Your task to perform on an android device: open a bookmark in the chrome app Image 0: 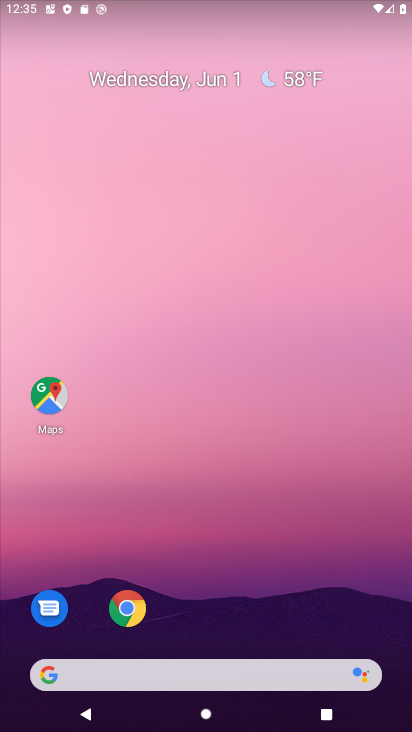
Step 0: click (127, 617)
Your task to perform on an android device: open a bookmark in the chrome app Image 1: 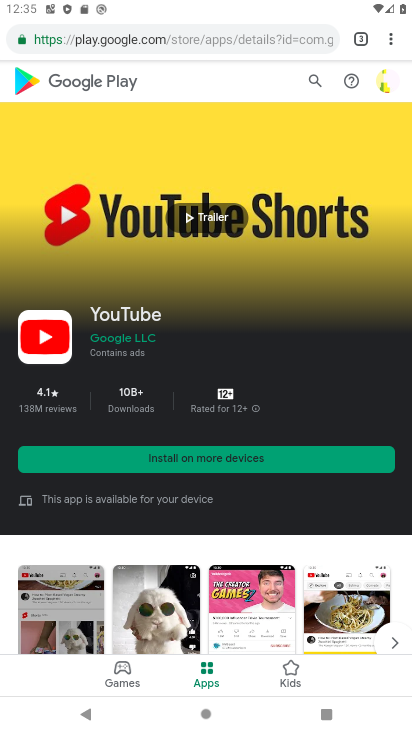
Step 1: click (386, 38)
Your task to perform on an android device: open a bookmark in the chrome app Image 2: 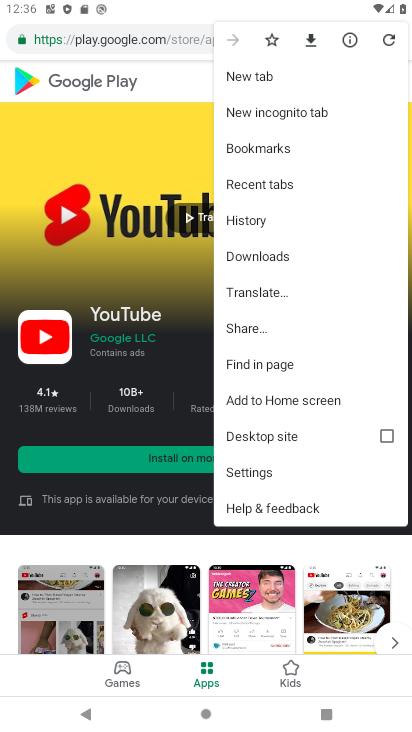
Step 2: click (284, 150)
Your task to perform on an android device: open a bookmark in the chrome app Image 3: 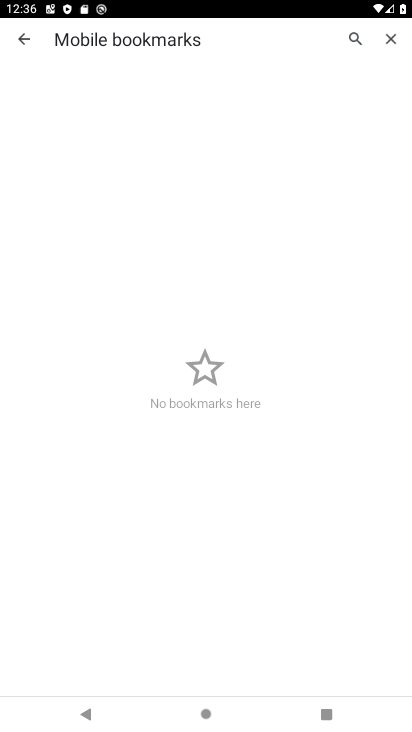
Step 3: task complete